Your task to perform on an android device: What is the news today? Image 0: 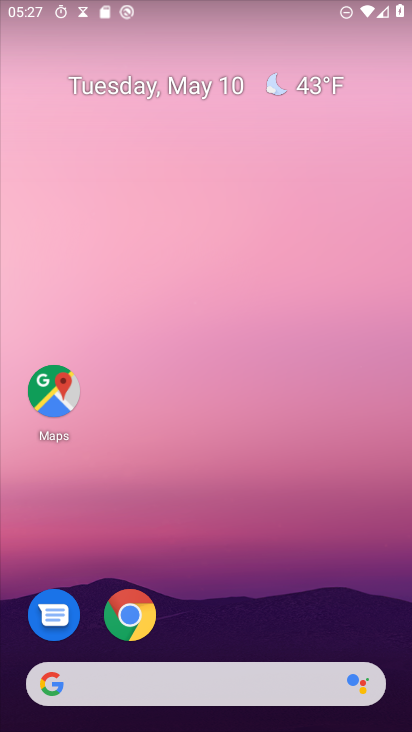
Step 0: drag from (183, 658) to (216, 3)
Your task to perform on an android device: What is the news today? Image 1: 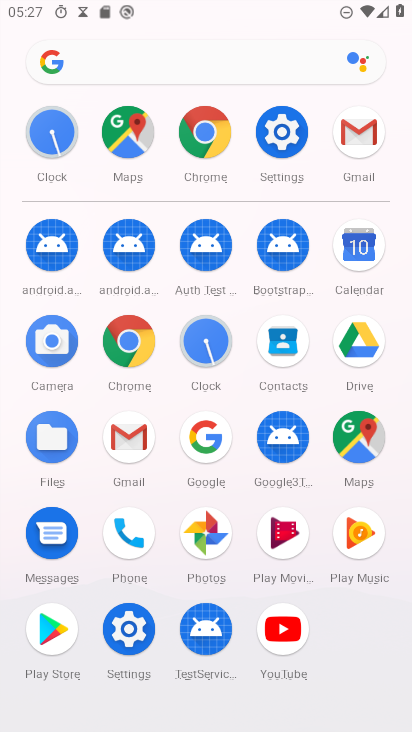
Step 1: click (122, 349)
Your task to perform on an android device: What is the news today? Image 2: 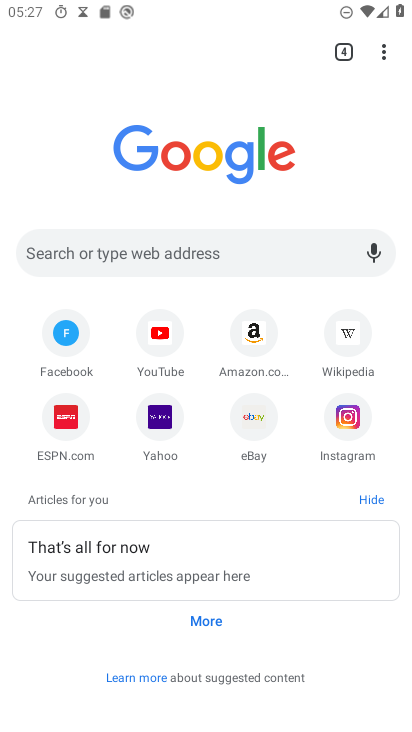
Step 2: click (183, 254)
Your task to perform on an android device: What is the news today? Image 3: 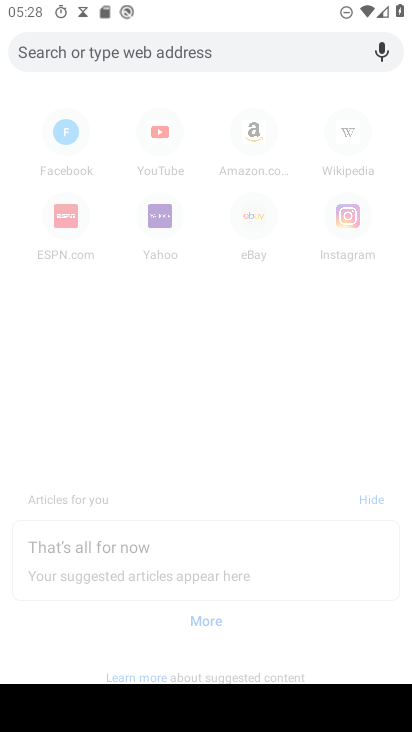
Step 3: type "news today"
Your task to perform on an android device: What is the news today? Image 4: 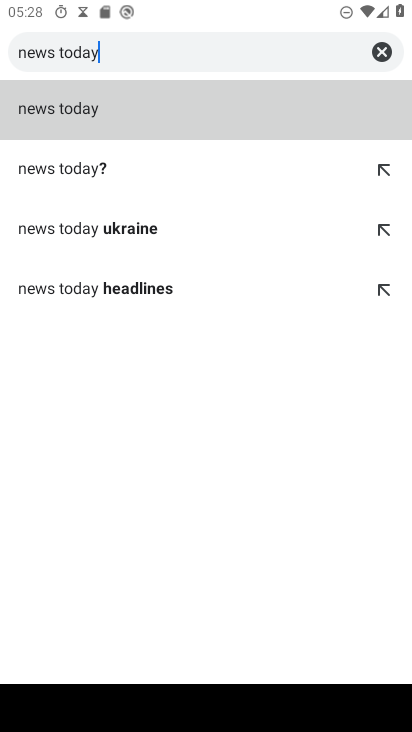
Step 4: click (111, 108)
Your task to perform on an android device: What is the news today? Image 5: 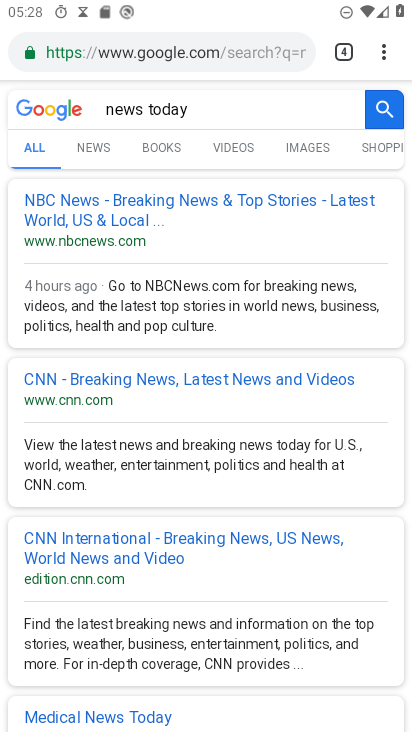
Step 5: task complete